Your task to perform on an android device: turn off javascript in the chrome app Image 0: 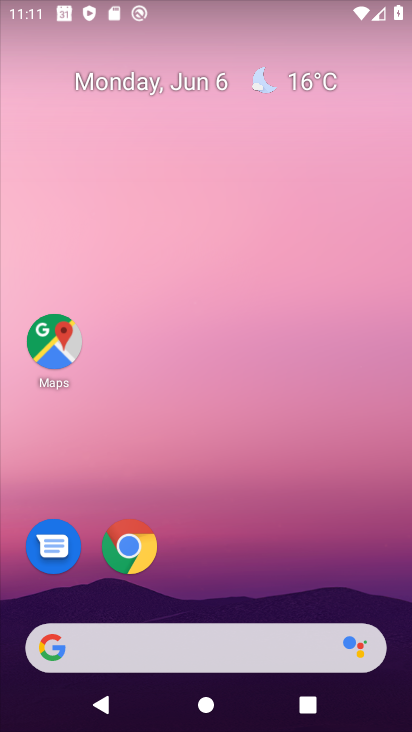
Step 0: click (127, 546)
Your task to perform on an android device: turn off javascript in the chrome app Image 1: 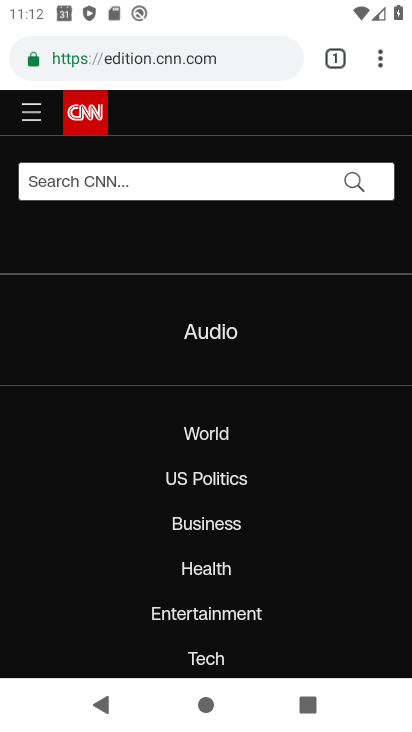
Step 1: click (383, 47)
Your task to perform on an android device: turn off javascript in the chrome app Image 2: 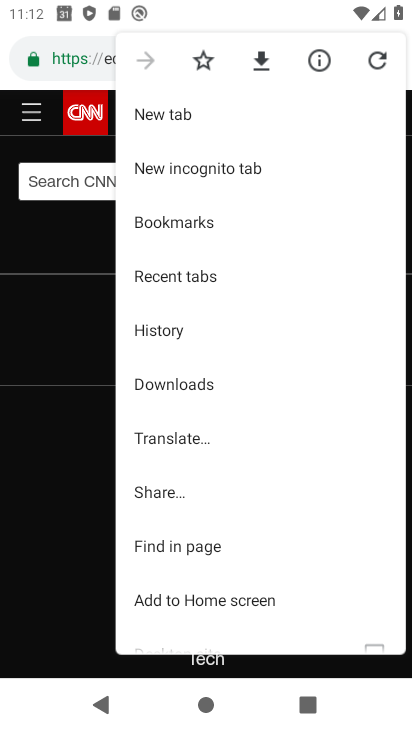
Step 2: drag from (206, 490) to (285, 23)
Your task to perform on an android device: turn off javascript in the chrome app Image 3: 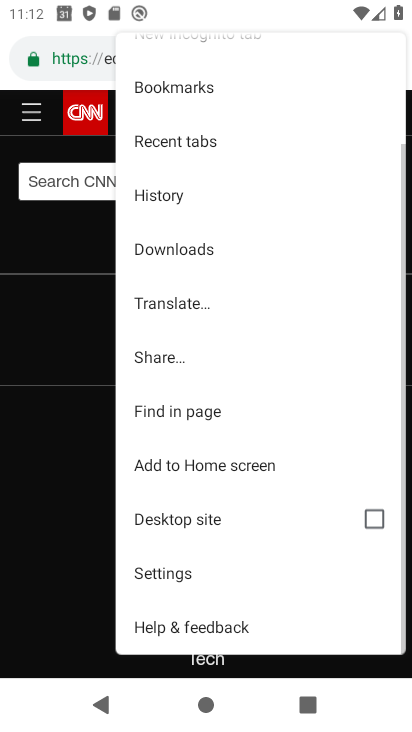
Step 3: click (180, 575)
Your task to perform on an android device: turn off javascript in the chrome app Image 4: 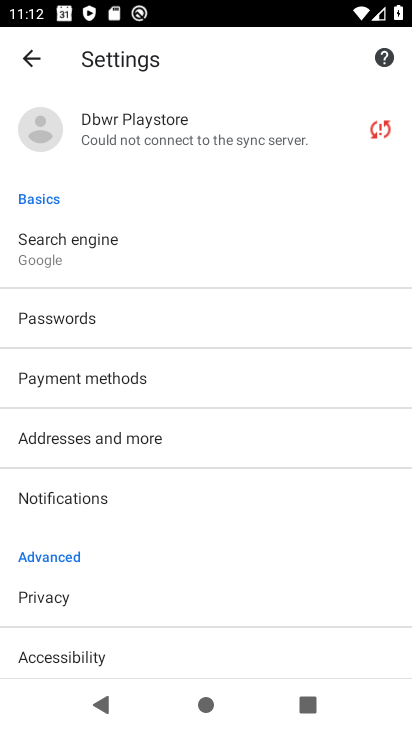
Step 4: drag from (173, 616) to (252, 185)
Your task to perform on an android device: turn off javascript in the chrome app Image 5: 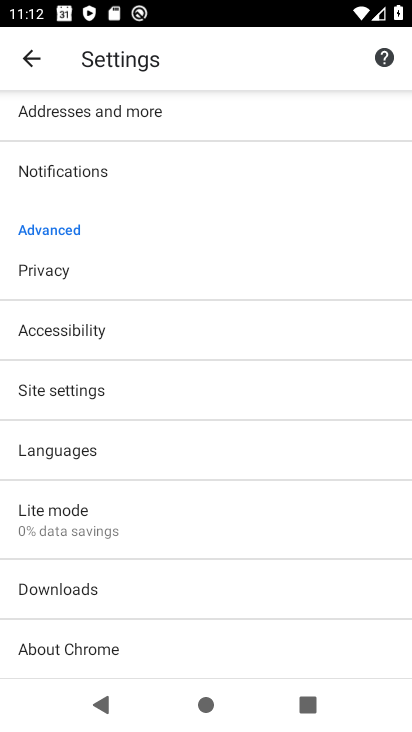
Step 5: click (46, 397)
Your task to perform on an android device: turn off javascript in the chrome app Image 6: 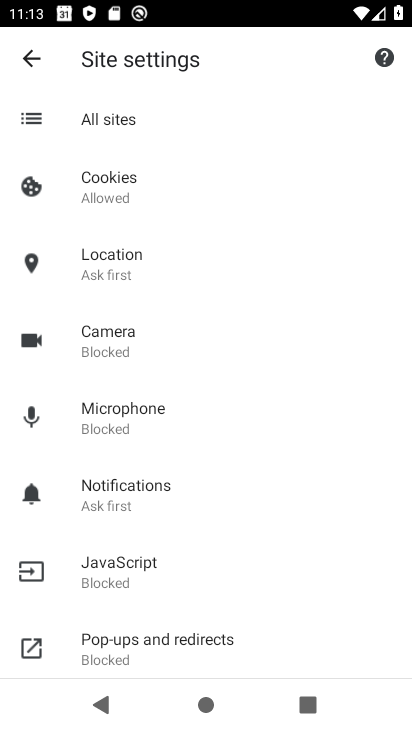
Step 6: click (146, 562)
Your task to perform on an android device: turn off javascript in the chrome app Image 7: 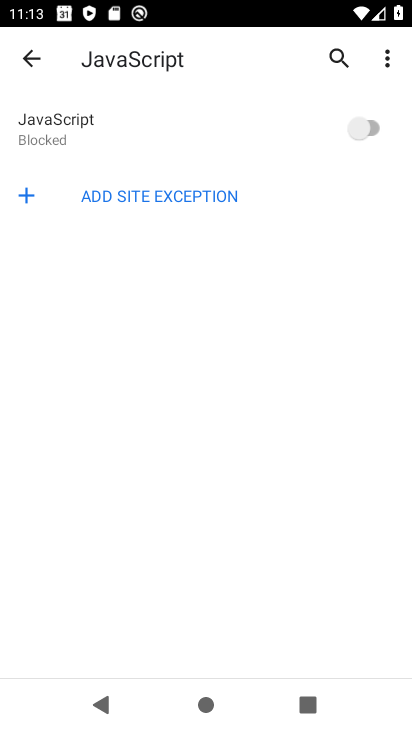
Step 7: task complete